Your task to perform on an android device: Set the phone to "Do not disturb". Image 0: 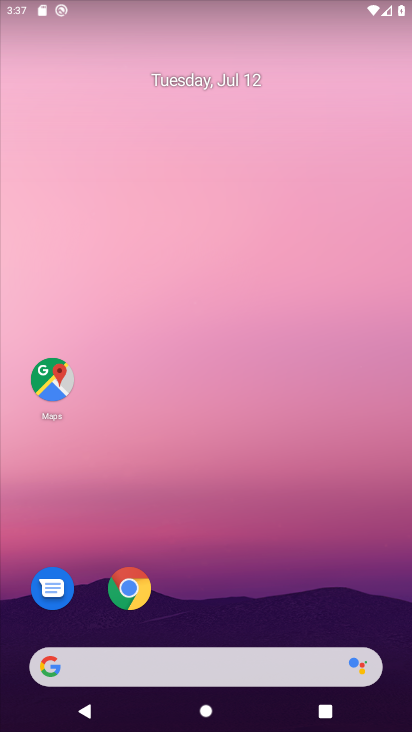
Step 0: drag from (304, 623) to (279, 76)
Your task to perform on an android device: Set the phone to "Do not disturb". Image 1: 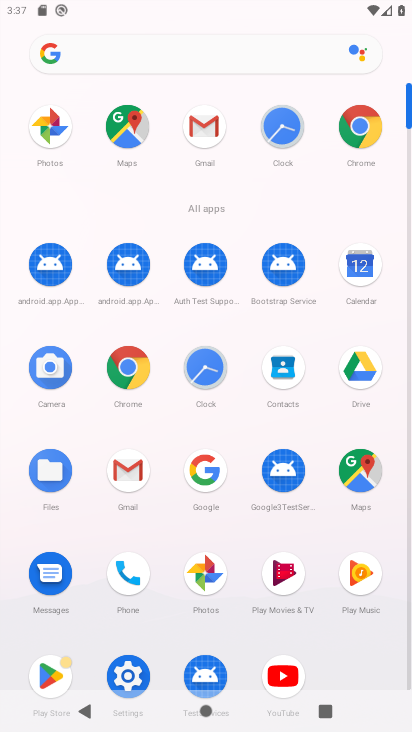
Step 1: click (132, 674)
Your task to perform on an android device: Set the phone to "Do not disturb". Image 2: 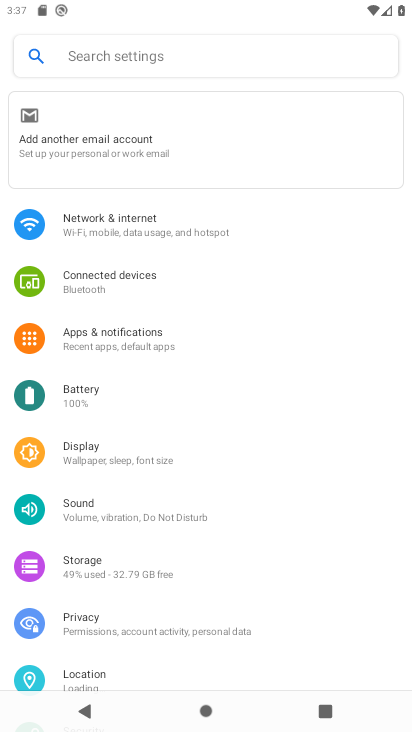
Step 2: click (188, 519)
Your task to perform on an android device: Set the phone to "Do not disturb". Image 3: 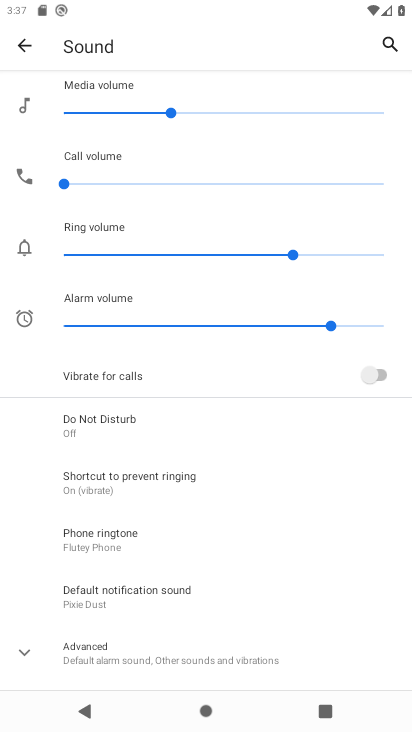
Step 3: click (228, 430)
Your task to perform on an android device: Set the phone to "Do not disturb". Image 4: 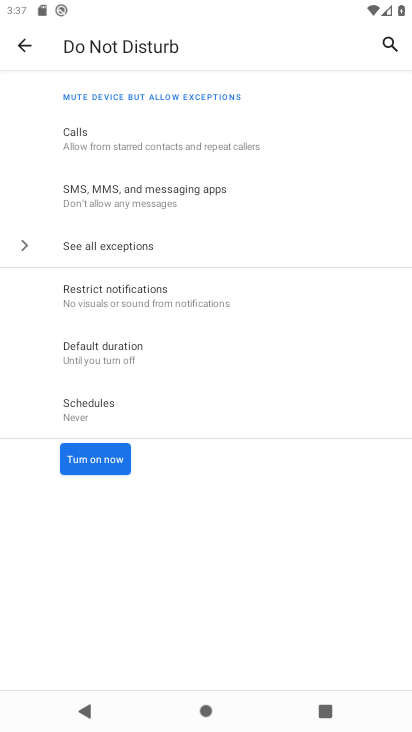
Step 4: click (99, 464)
Your task to perform on an android device: Set the phone to "Do not disturb". Image 5: 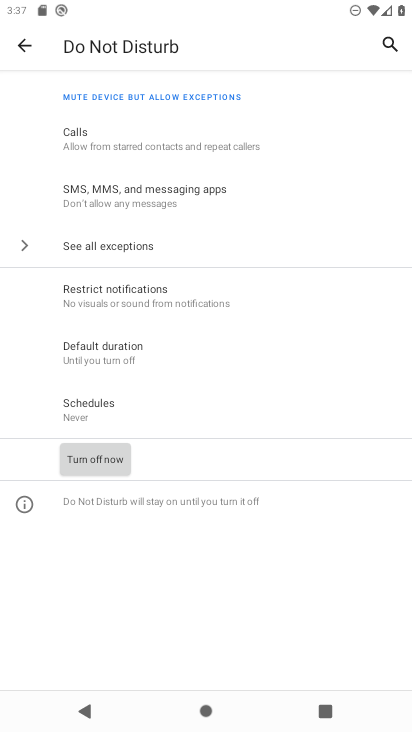
Step 5: task complete